Your task to perform on an android device: snooze an email in the gmail app Image 0: 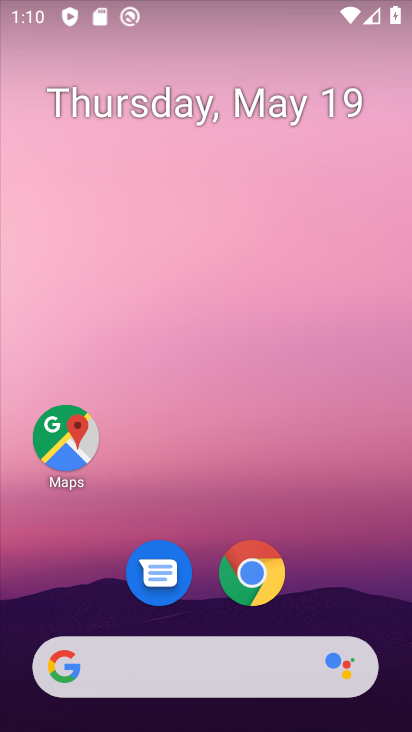
Step 0: drag from (331, 423) to (264, 32)
Your task to perform on an android device: snooze an email in the gmail app Image 1: 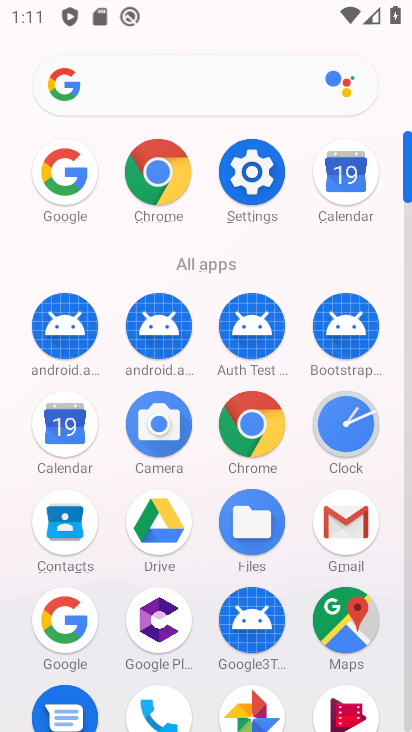
Step 1: click (345, 521)
Your task to perform on an android device: snooze an email in the gmail app Image 2: 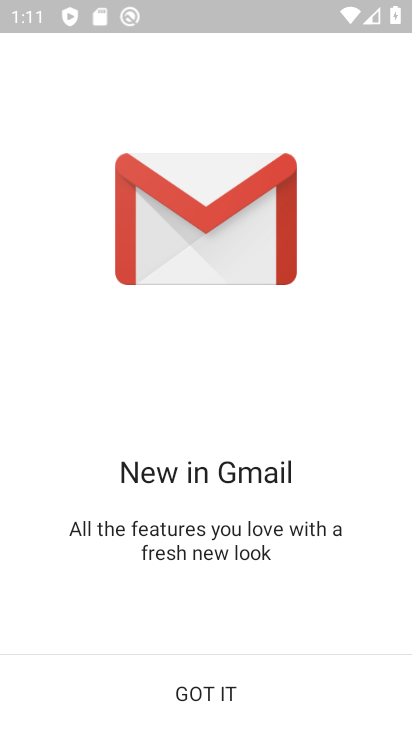
Step 2: click (194, 694)
Your task to perform on an android device: snooze an email in the gmail app Image 3: 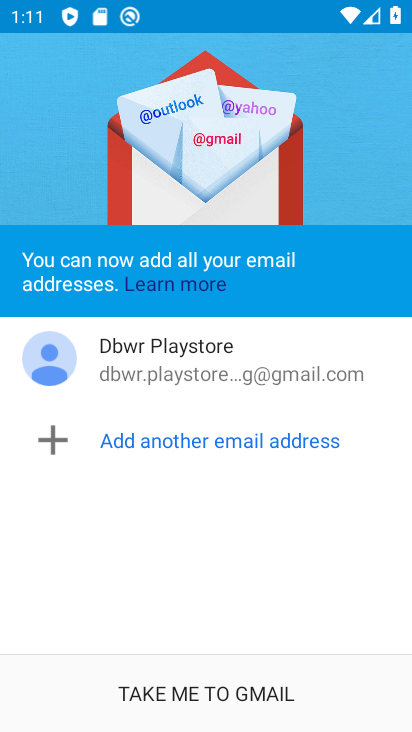
Step 3: click (181, 688)
Your task to perform on an android device: snooze an email in the gmail app Image 4: 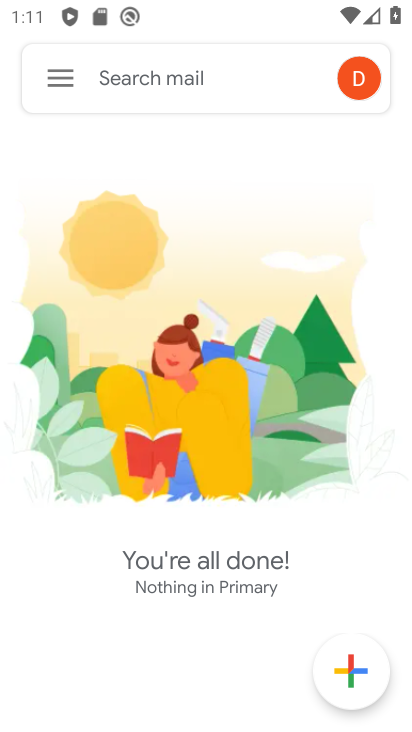
Step 4: click (47, 72)
Your task to perform on an android device: snooze an email in the gmail app Image 5: 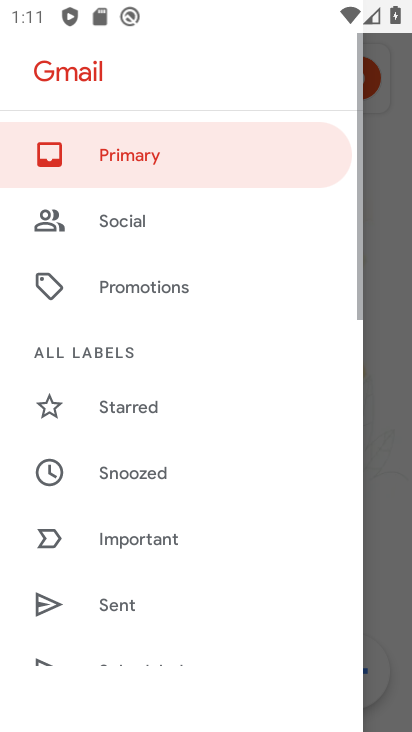
Step 5: click (165, 472)
Your task to perform on an android device: snooze an email in the gmail app Image 6: 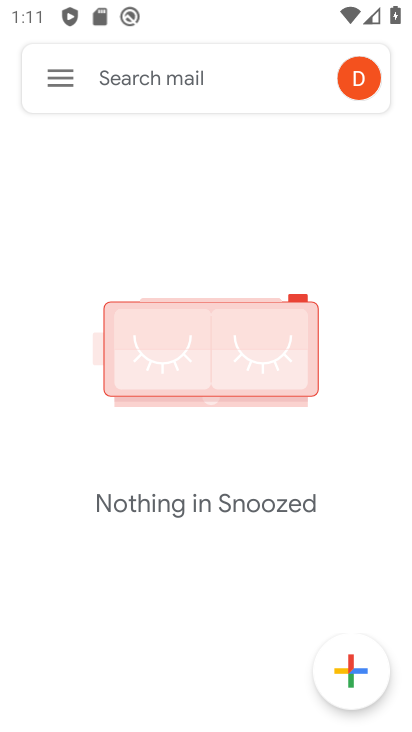
Step 6: task complete